Your task to perform on an android device: change notification settings in the gmail app Image 0: 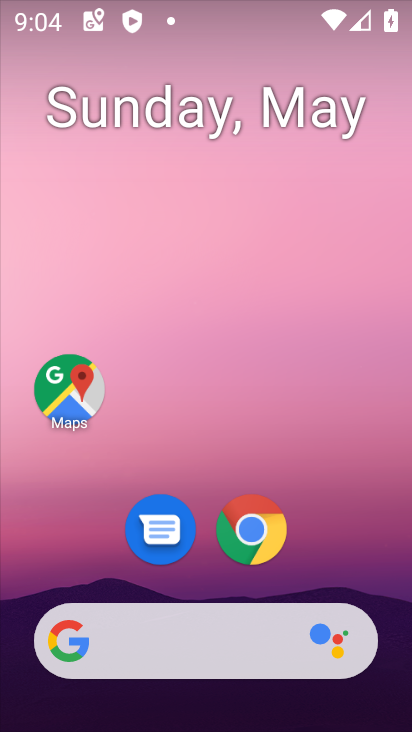
Step 0: click (224, 522)
Your task to perform on an android device: change notification settings in the gmail app Image 1: 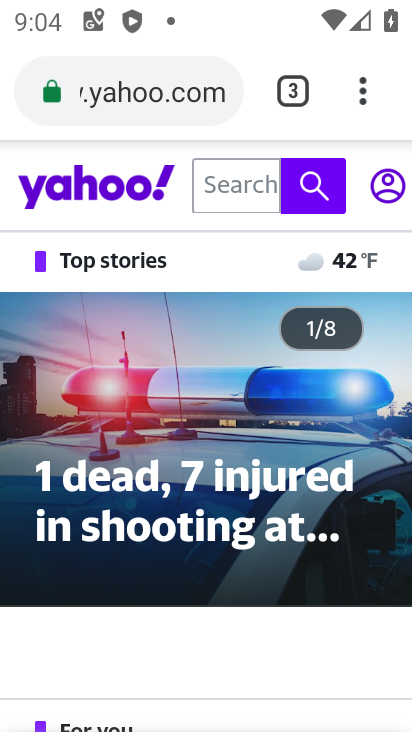
Step 1: press home button
Your task to perform on an android device: change notification settings in the gmail app Image 2: 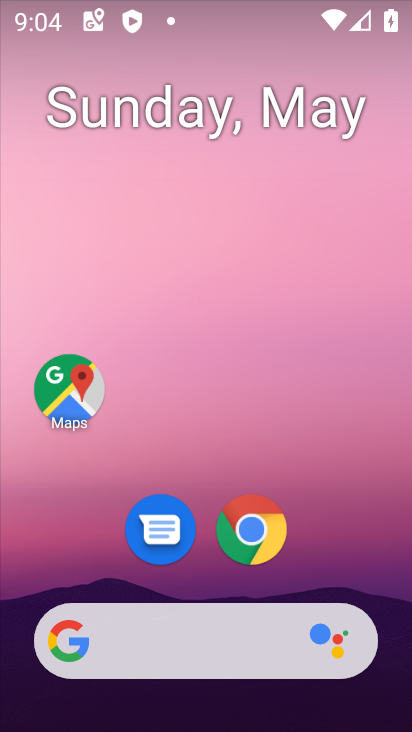
Step 2: drag from (76, 566) to (16, 225)
Your task to perform on an android device: change notification settings in the gmail app Image 3: 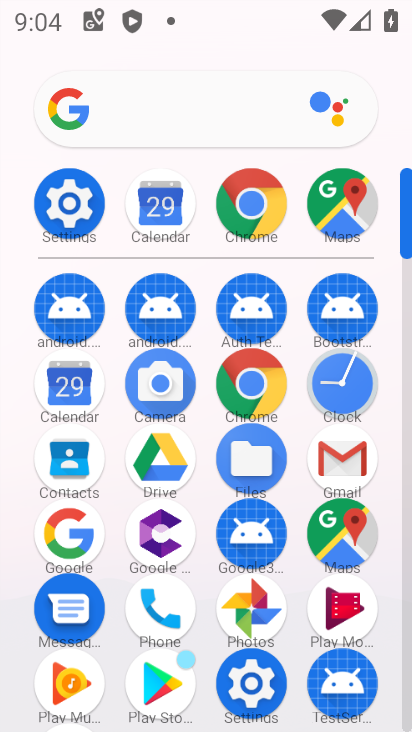
Step 3: click (346, 455)
Your task to perform on an android device: change notification settings in the gmail app Image 4: 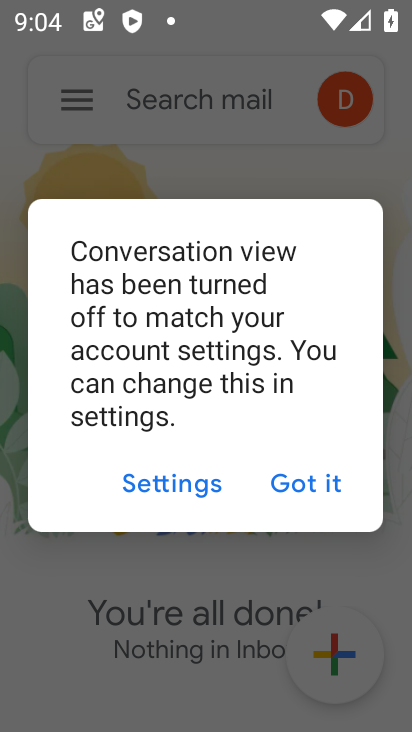
Step 4: click (285, 464)
Your task to perform on an android device: change notification settings in the gmail app Image 5: 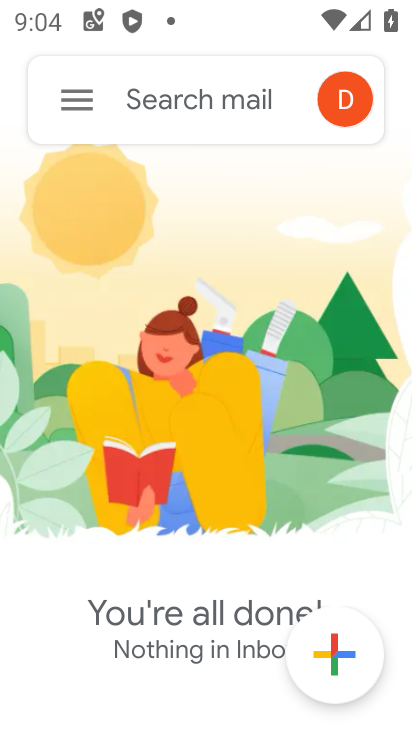
Step 5: click (80, 88)
Your task to perform on an android device: change notification settings in the gmail app Image 6: 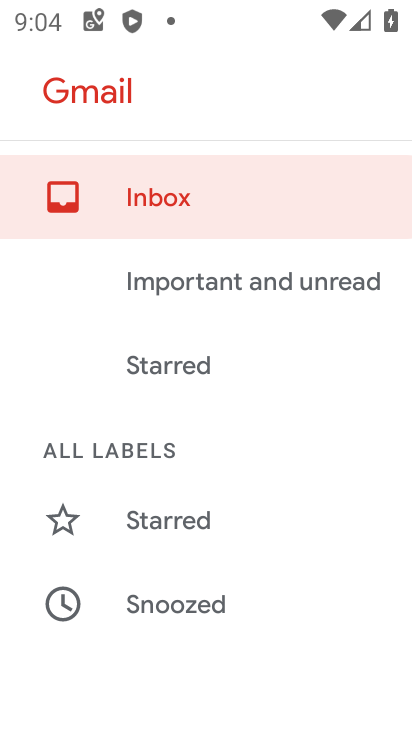
Step 6: drag from (123, 585) to (54, 8)
Your task to perform on an android device: change notification settings in the gmail app Image 7: 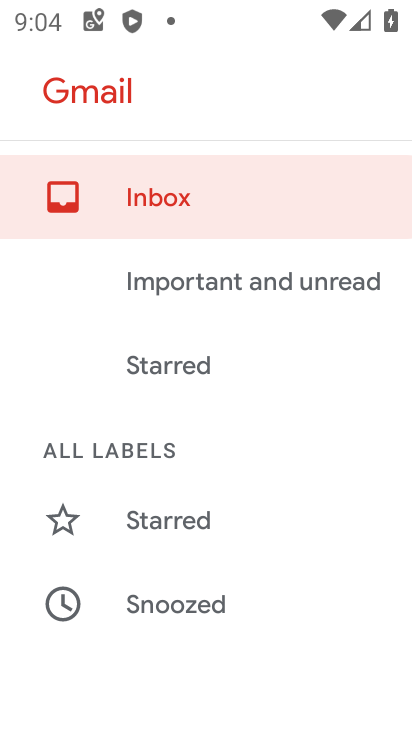
Step 7: drag from (204, 586) to (204, 476)
Your task to perform on an android device: change notification settings in the gmail app Image 8: 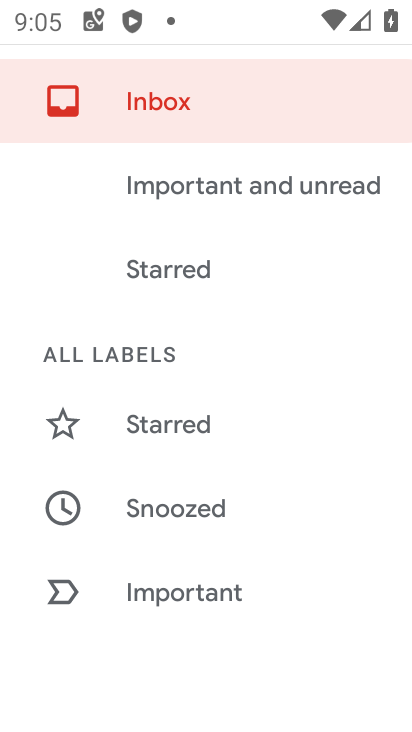
Step 8: drag from (243, 581) to (186, 135)
Your task to perform on an android device: change notification settings in the gmail app Image 9: 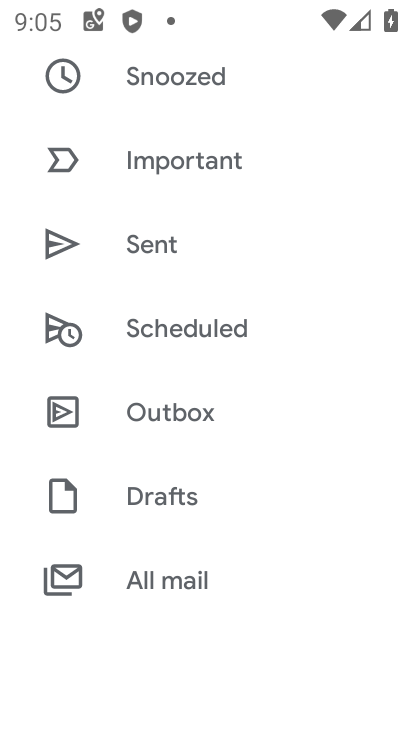
Step 9: drag from (186, 540) to (192, 161)
Your task to perform on an android device: change notification settings in the gmail app Image 10: 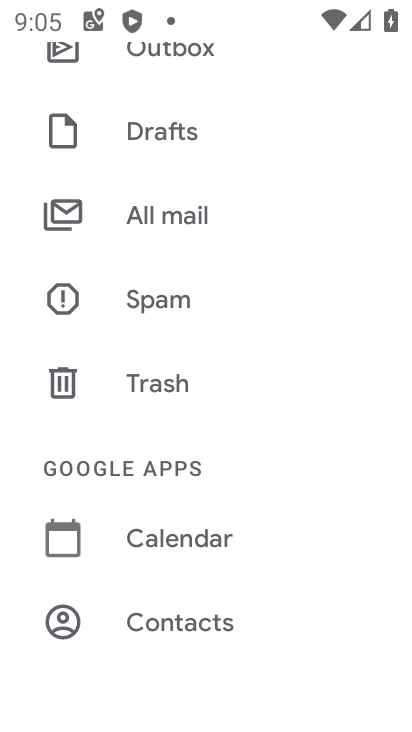
Step 10: drag from (161, 573) to (166, 375)
Your task to perform on an android device: change notification settings in the gmail app Image 11: 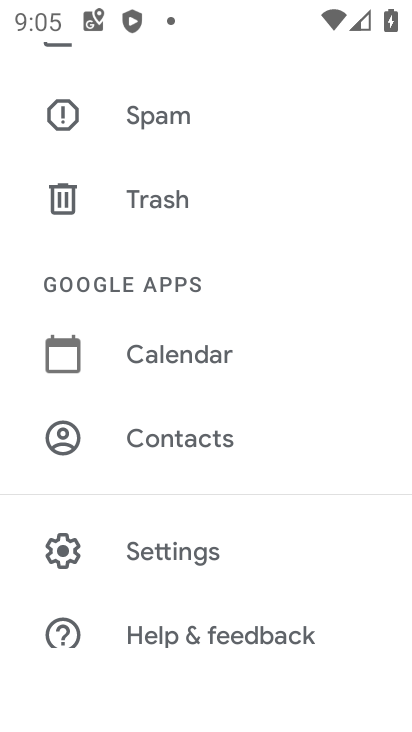
Step 11: click (159, 538)
Your task to perform on an android device: change notification settings in the gmail app Image 12: 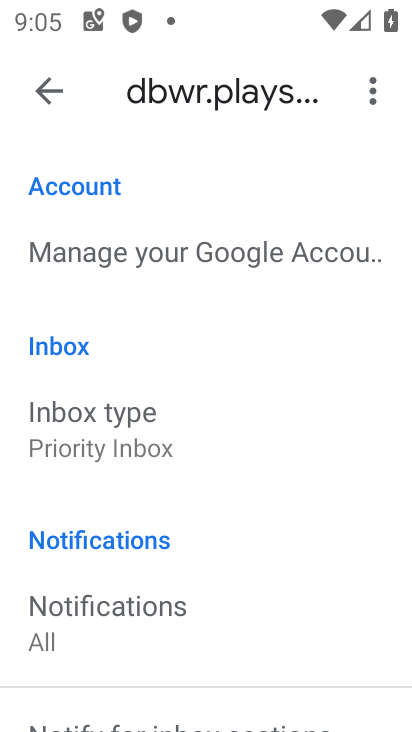
Step 12: task complete